Your task to perform on an android device: Open battery settings Image 0: 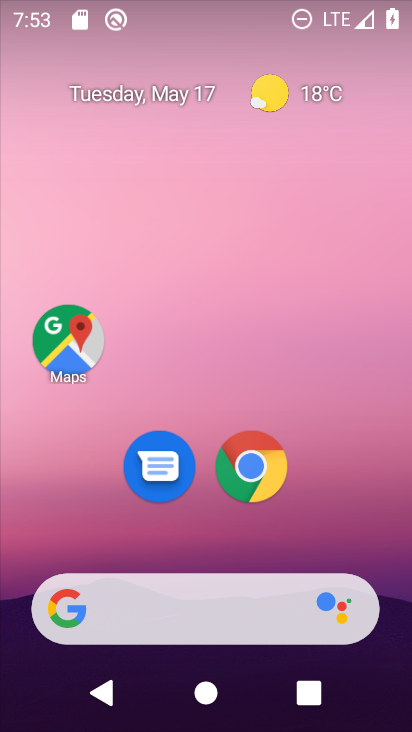
Step 0: drag from (211, 609) to (347, 121)
Your task to perform on an android device: Open battery settings Image 1: 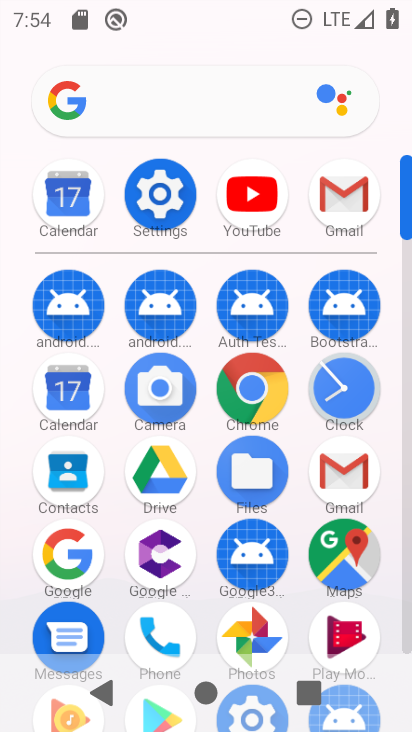
Step 1: click (164, 183)
Your task to perform on an android device: Open battery settings Image 2: 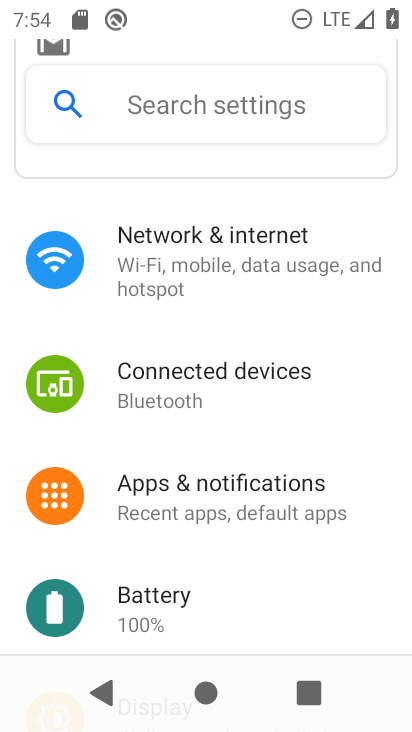
Step 2: click (179, 604)
Your task to perform on an android device: Open battery settings Image 3: 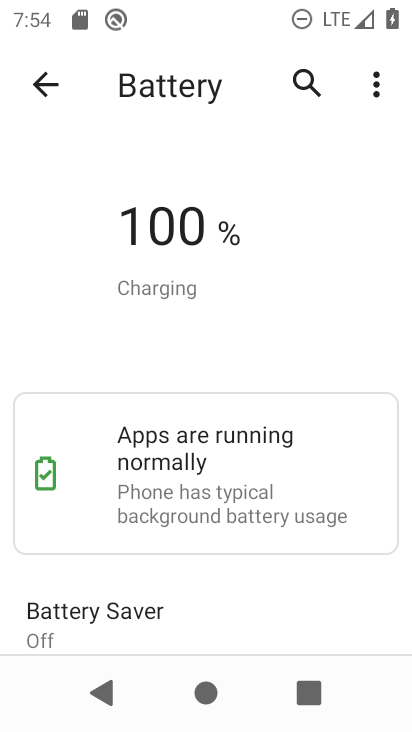
Step 3: task complete